Your task to perform on an android device: Go to eBay Image 0: 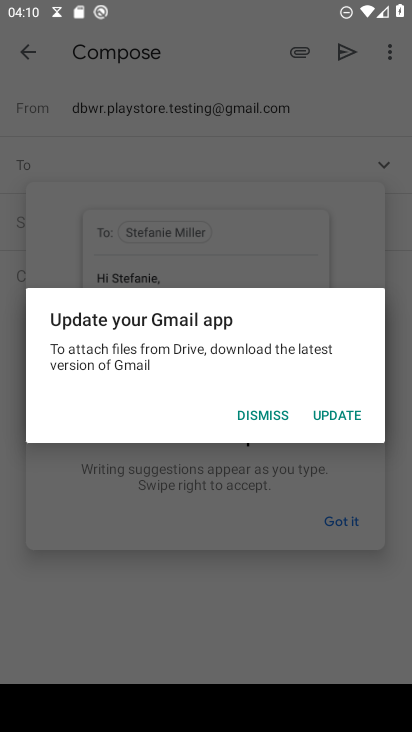
Step 0: press home button
Your task to perform on an android device: Go to eBay Image 1: 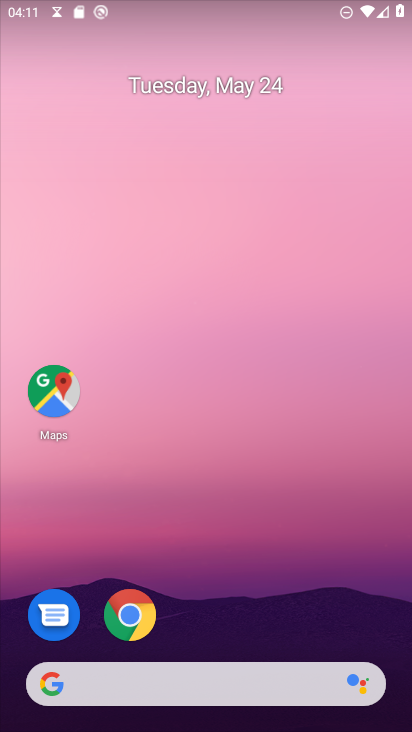
Step 1: drag from (225, 608) to (292, 0)
Your task to perform on an android device: Go to eBay Image 2: 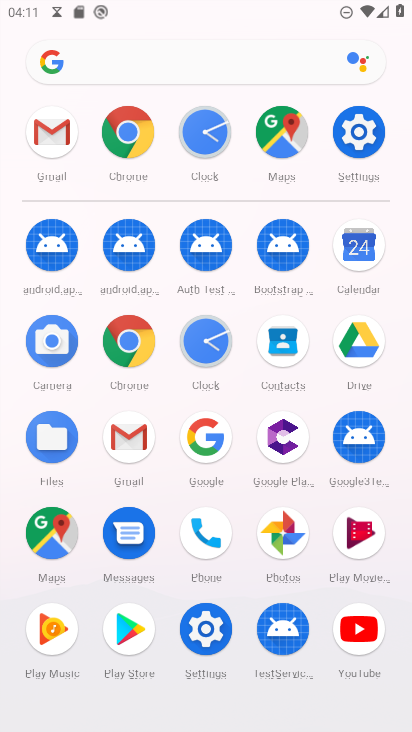
Step 2: click (128, 132)
Your task to perform on an android device: Go to eBay Image 3: 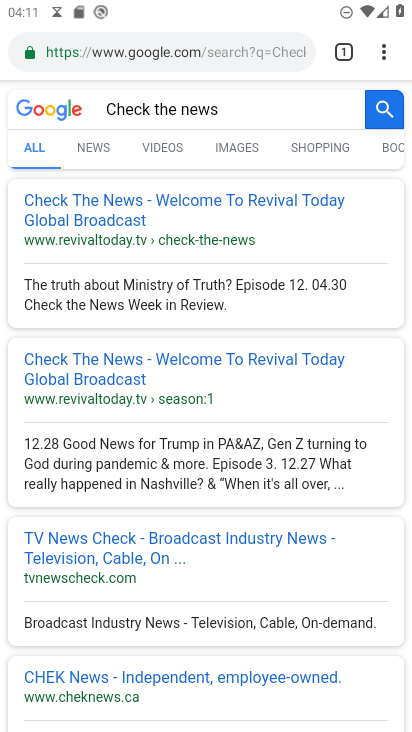
Step 3: click (184, 46)
Your task to perform on an android device: Go to eBay Image 4: 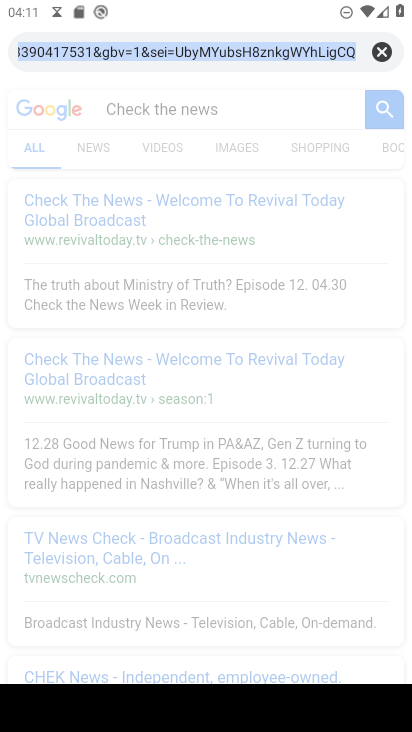
Step 4: click (379, 53)
Your task to perform on an android device: Go to eBay Image 5: 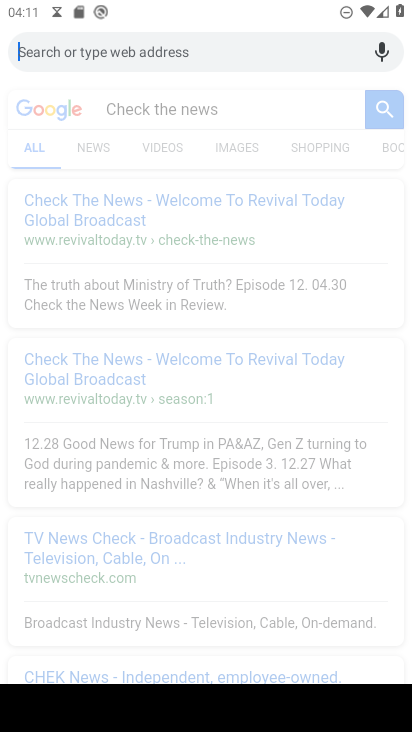
Step 5: type "eBay"
Your task to perform on an android device: Go to eBay Image 6: 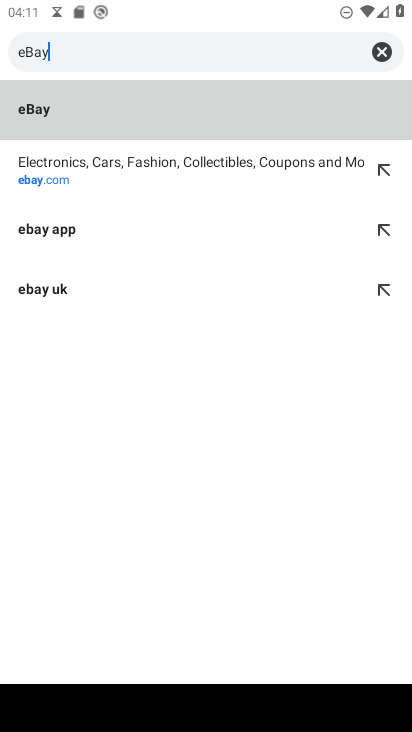
Step 6: click (106, 171)
Your task to perform on an android device: Go to eBay Image 7: 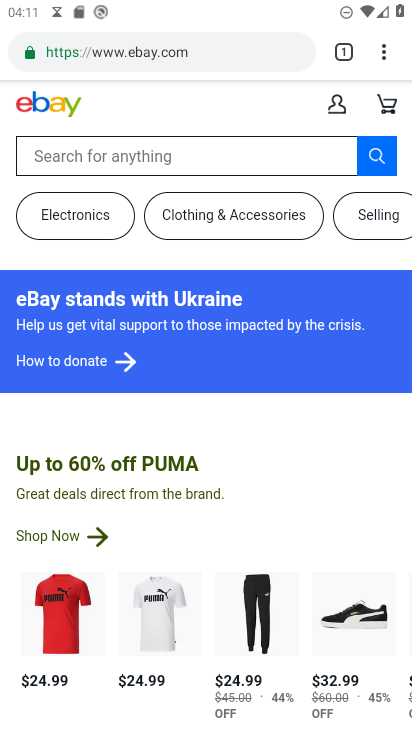
Step 7: task complete